Your task to perform on an android device: toggle airplane mode Image 0: 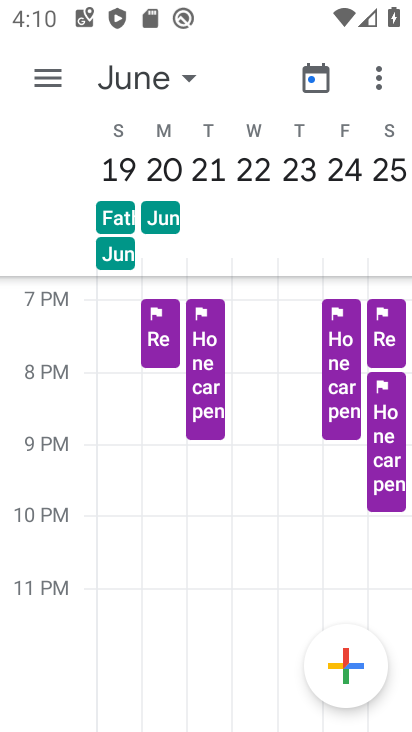
Step 0: press home button
Your task to perform on an android device: toggle airplane mode Image 1: 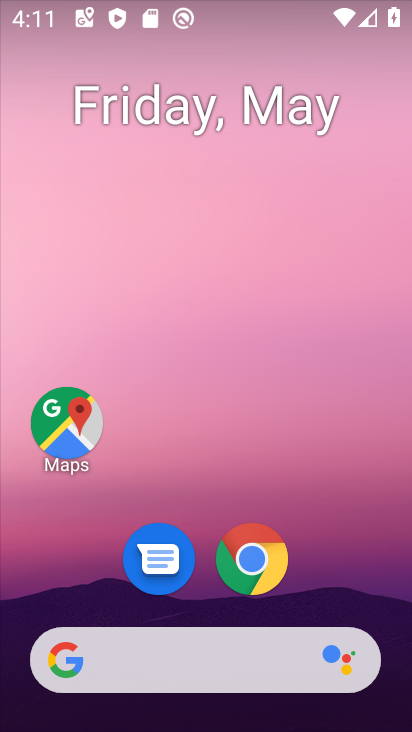
Step 1: drag from (294, 488) to (260, 59)
Your task to perform on an android device: toggle airplane mode Image 2: 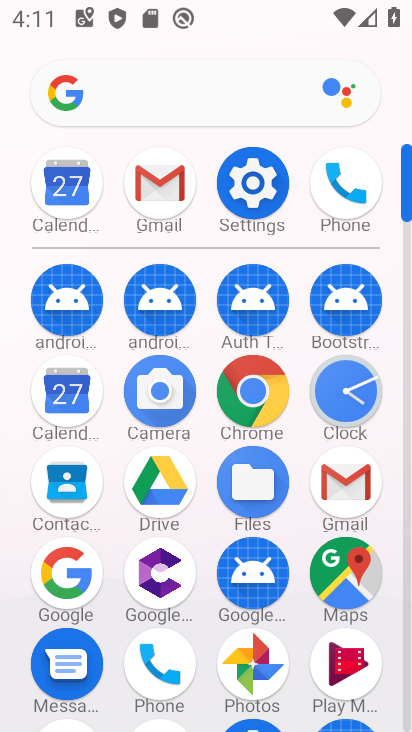
Step 2: click (250, 206)
Your task to perform on an android device: toggle airplane mode Image 3: 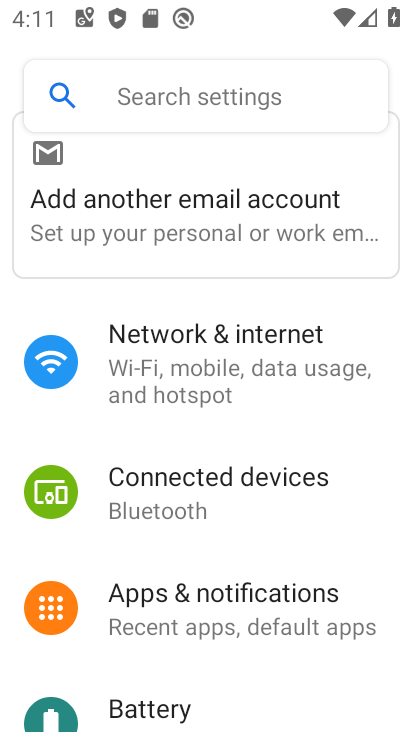
Step 3: click (285, 359)
Your task to perform on an android device: toggle airplane mode Image 4: 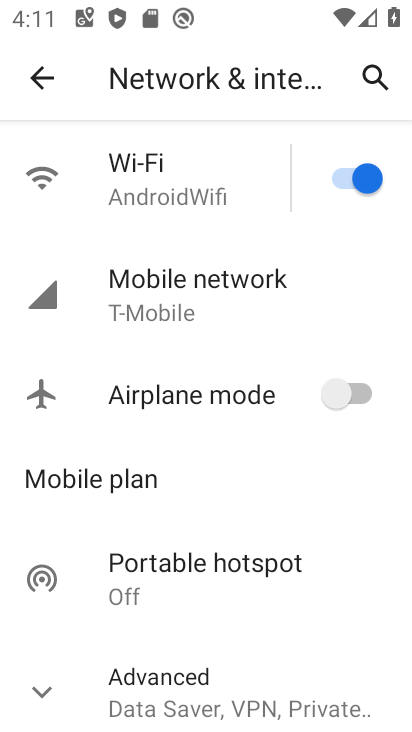
Step 4: click (330, 384)
Your task to perform on an android device: toggle airplane mode Image 5: 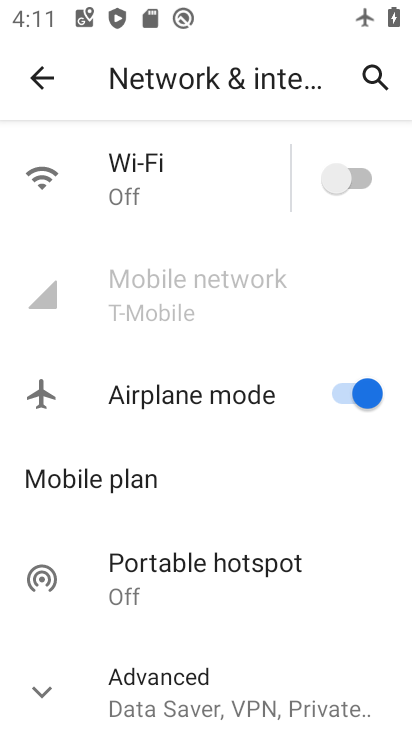
Step 5: task complete